Your task to perform on an android device: What is the news today? Image 0: 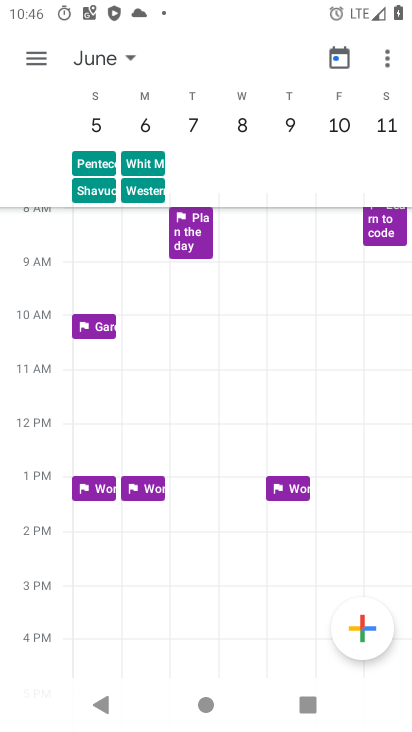
Step 0: press home button
Your task to perform on an android device: What is the news today? Image 1: 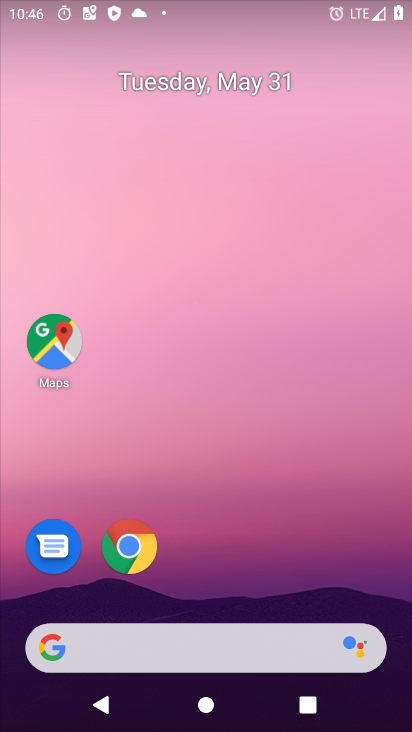
Step 1: click (281, 638)
Your task to perform on an android device: What is the news today? Image 2: 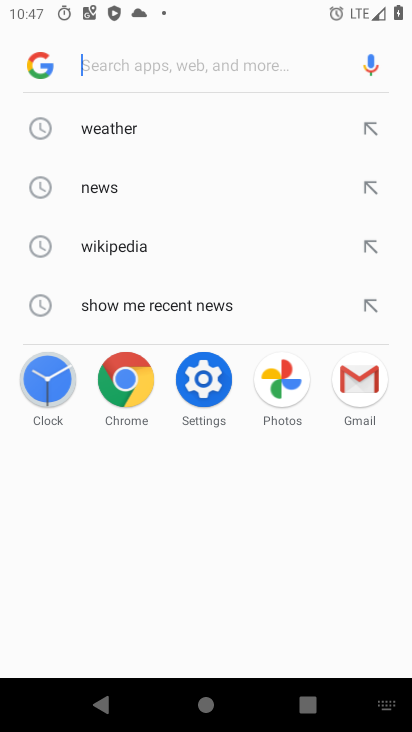
Step 2: type "news today"
Your task to perform on an android device: What is the news today? Image 3: 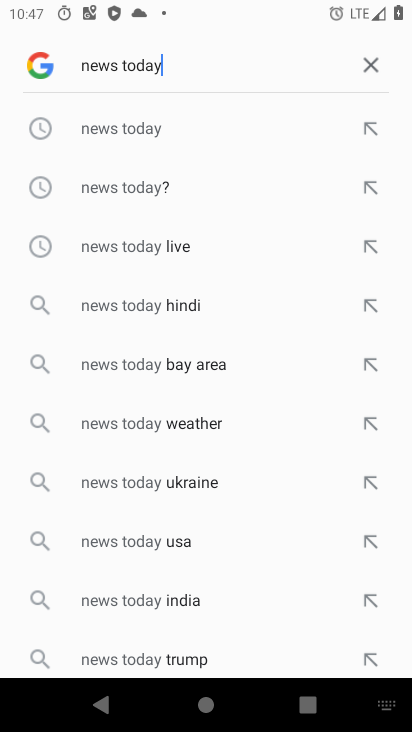
Step 3: click (222, 117)
Your task to perform on an android device: What is the news today? Image 4: 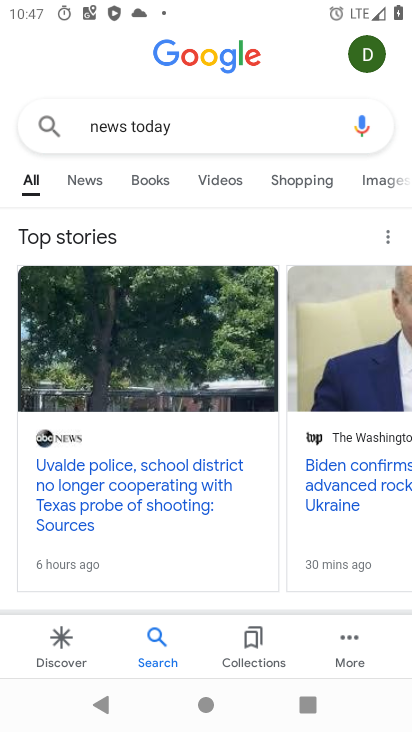
Step 4: task complete